Your task to perform on an android device: choose inbox layout in the gmail app Image 0: 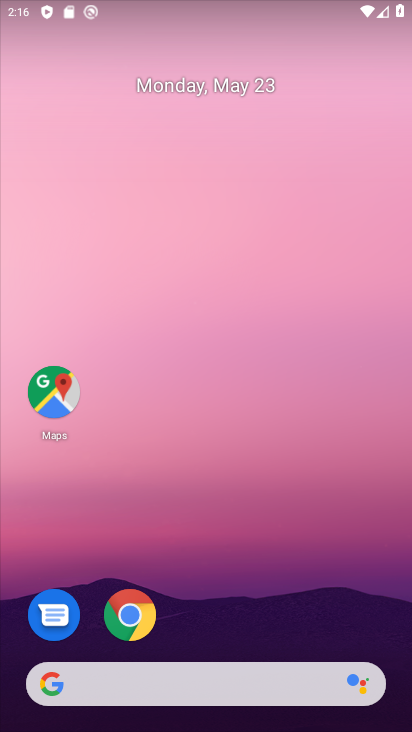
Step 0: drag from (310, 633) to (305, 9)
Your task to perform on an android device: choose inbox layout in the gmail app Image 1: 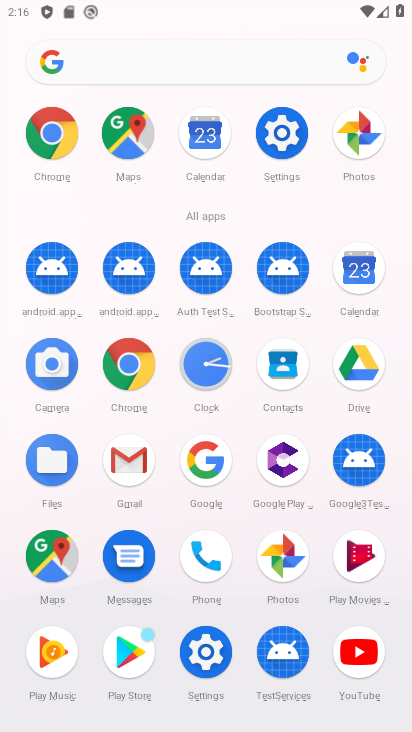
Step 1: click (121, 455)
Your task to perform on an android device: choose inbox layout in the gmail app Image 2: 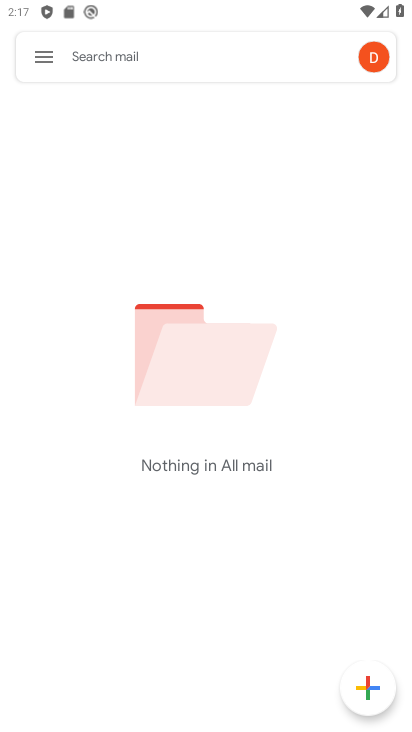
Step 2: click (43, 54)
Your task to perform on an android device: choose inbox layout in the gmail app Image 3: 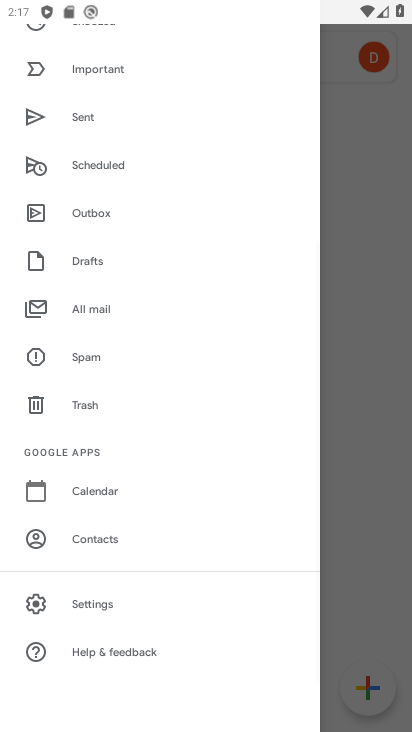
Step 3: click (81, 610)
Your task to perform on an android device: choose inbox layout in the gmail app Image 4: 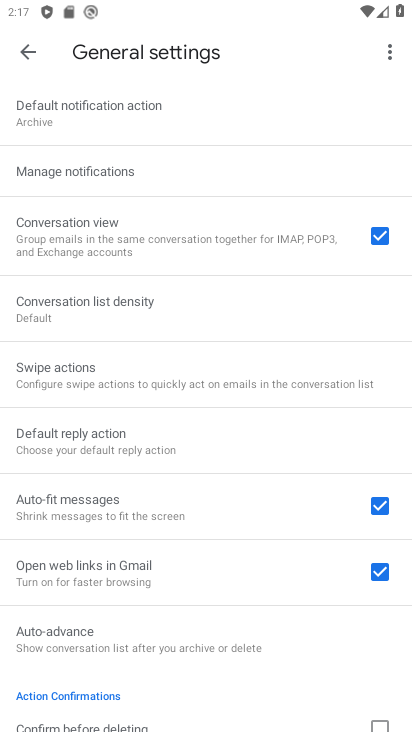
Step 4: click (26, 53)
Your task to perform on an android device: choose inbox layout in the gmail app Image 5: 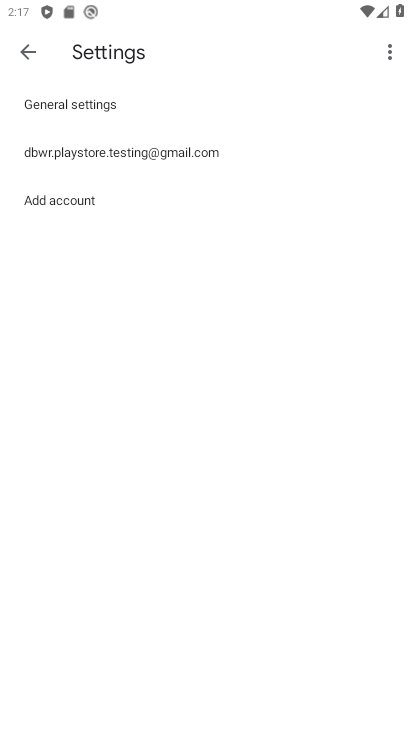
Step 5: click (71, 156)
Your task to perform on an android device: choose inbox layout in the gmail app Image 6: 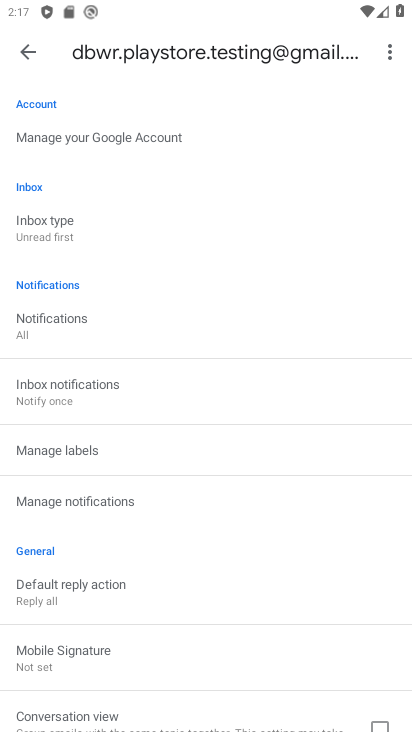
Step 6: click (35, 237)
Your task to perform on an android device: choose inbox layout in the gmail app Image 7: 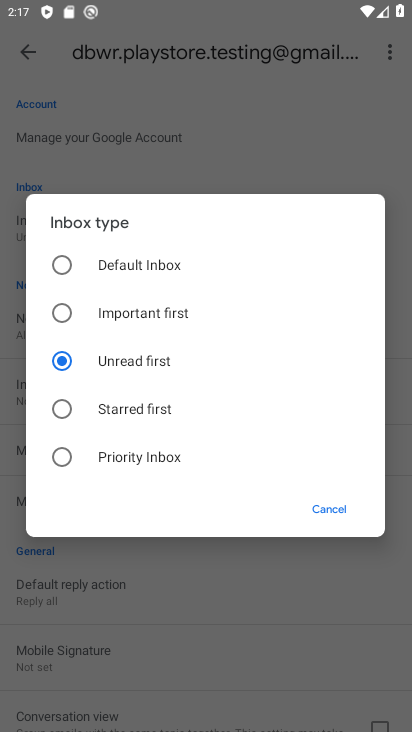
Step 7: click (67, 416)
Your task to perform on an android device: choose inbox layout in the gmail app Image 8: 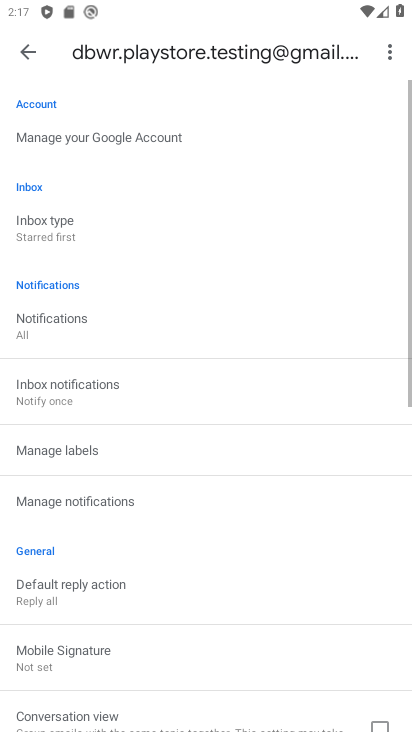
Step 8: task complete